Your task to perform on an android device: open the mobile data screen to see how much data has been used Image 0: 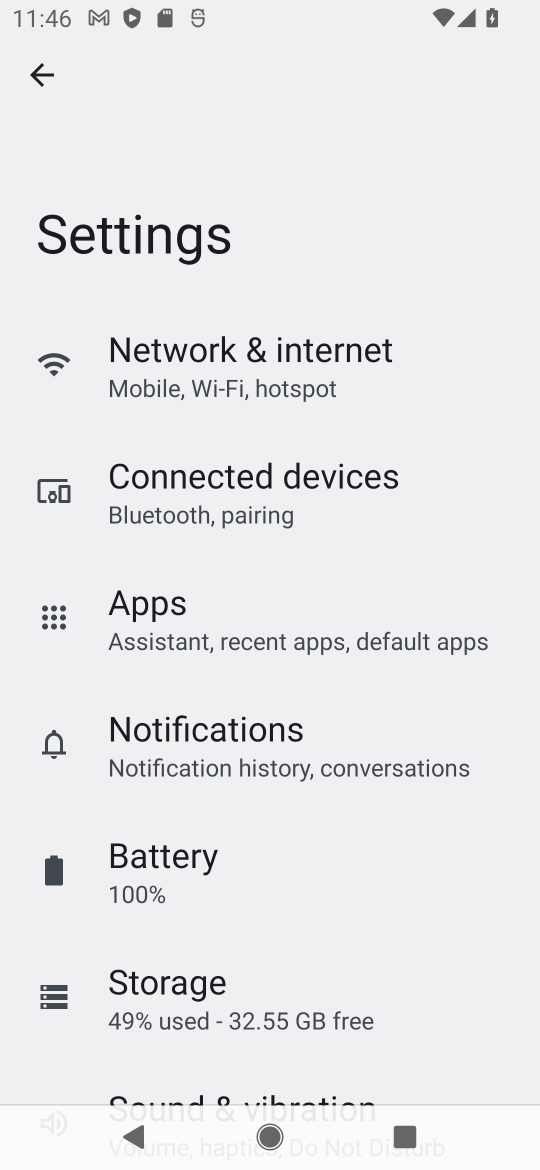
Step 0: click (279, 374)
Your task to perform on an android device: open the mobile data screen to see how much data has been used Image 1: 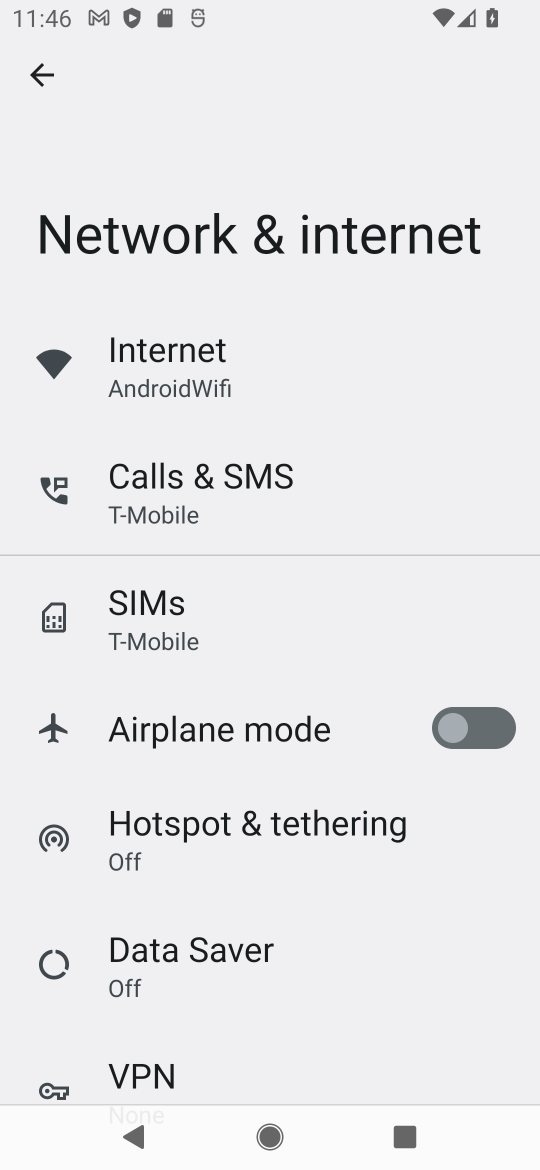
Step 1: click (289, 361)
Your task to perform on an android device: open the mobile data screen to see how much data has been used Image 2: 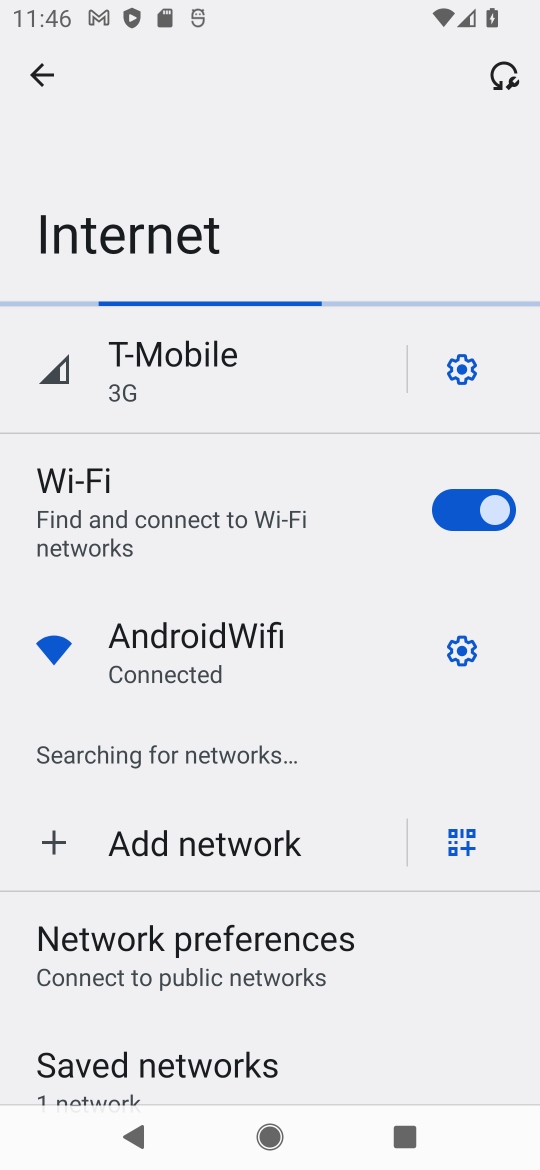
Step 2: drag from (168, 1024) to (316, 291)
Your task to perform on an android device: open the mobile data screen to see how much data has been used Image 3: 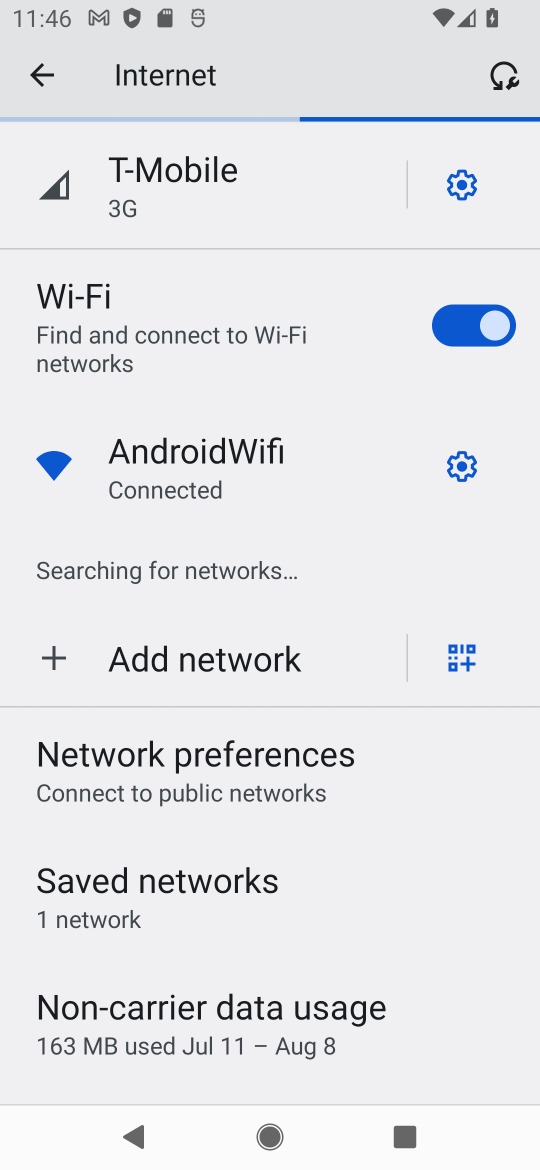
Step 3: click (188, 1001)
Your task to perform on an android device: open the mobile data screen to see how much data has been used Image 4: 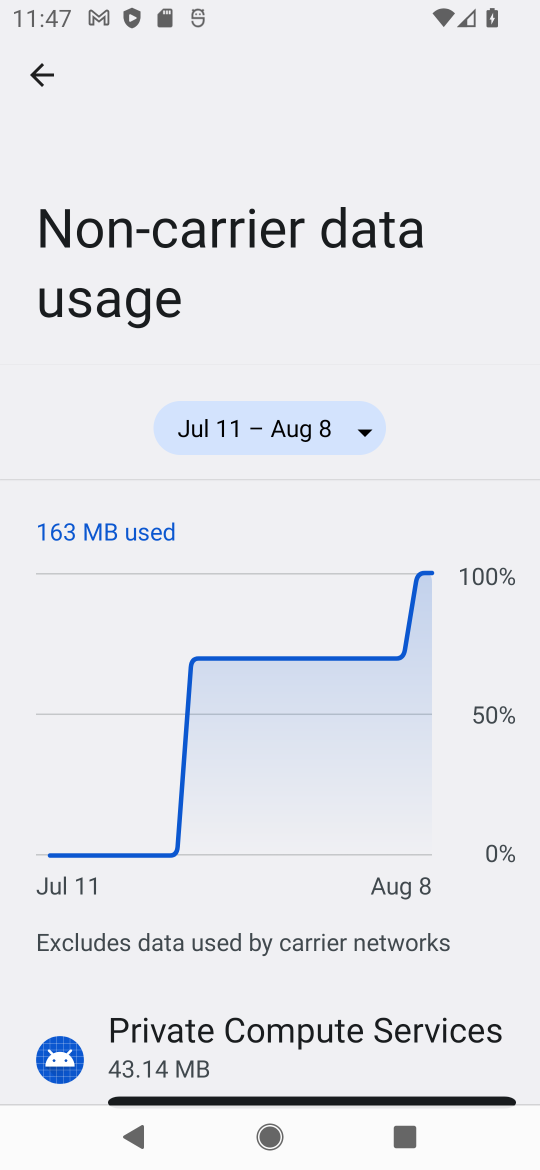
Step 4: task complete